Your task to perform on an android device: Is it going to rain tomorrow? Image 0: 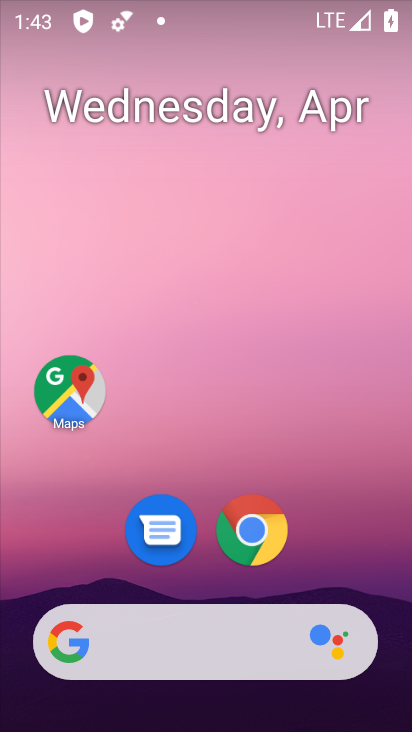
Step 0: drag from (332, 545) to (212, 0)
Your task to perform on an android device: Is it going to rain tomorrow? Image 1: 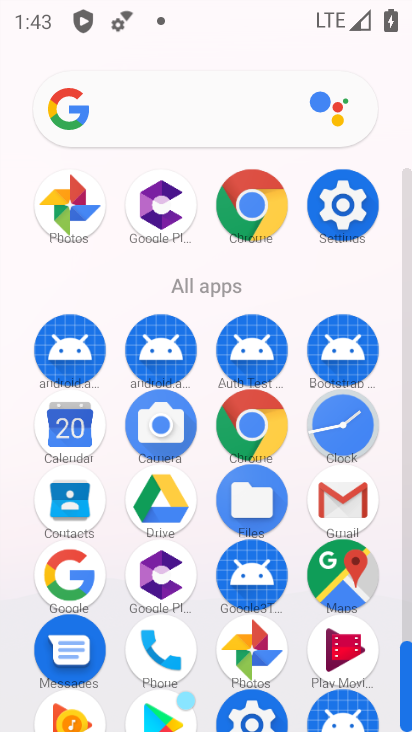
Step 1: click (240, 201)
Your task to perform on an android device: Is it going to rain tomorrow? Image 2: 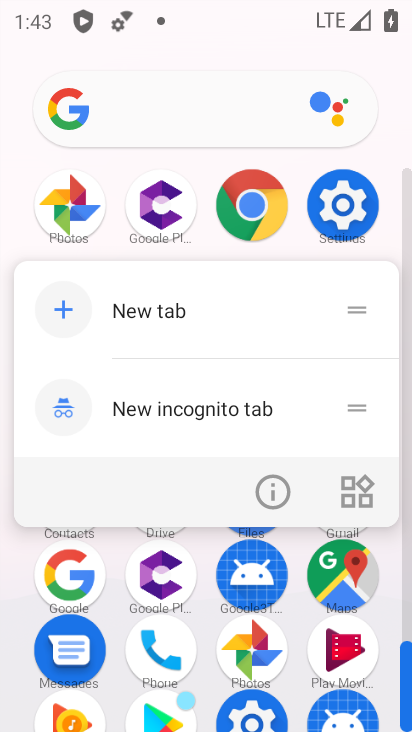
Step 2: click (301, 175)
Your task to perform on an android device: Is it going to rain tomorrow? Image 3: 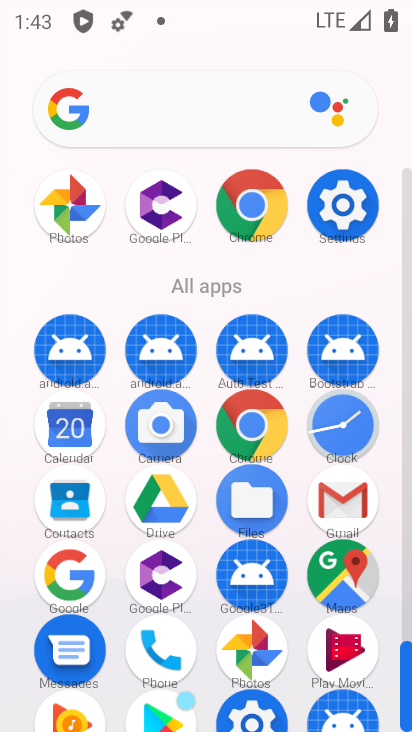
Step 3: click (245, 424)
Your task to perform on an android device: Is it going to rain tomorrow? Image 4: 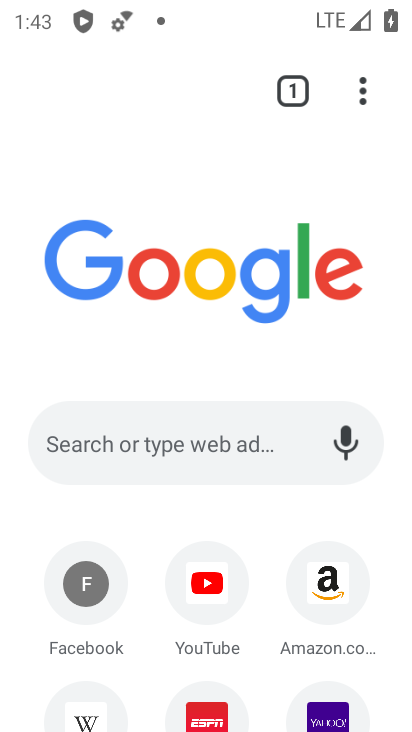
Step 4: click (191, 436)
Your task to perform on an android device: Is it going to rain tomorrow? Image 5: 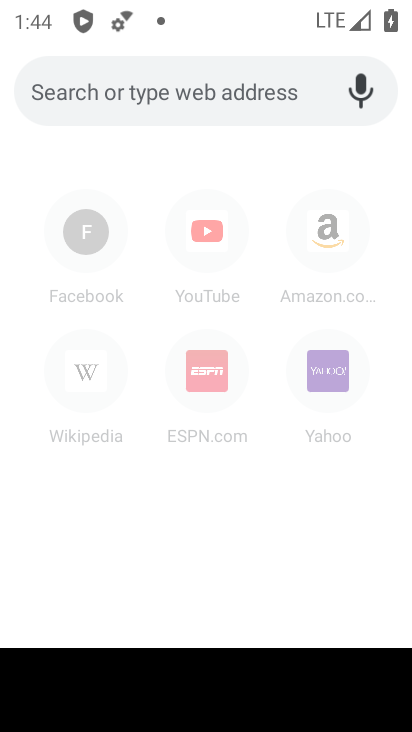
Step 5: type "weather"
Your task to perform on an android device: Is it going to rain tomorrow? Image 6: 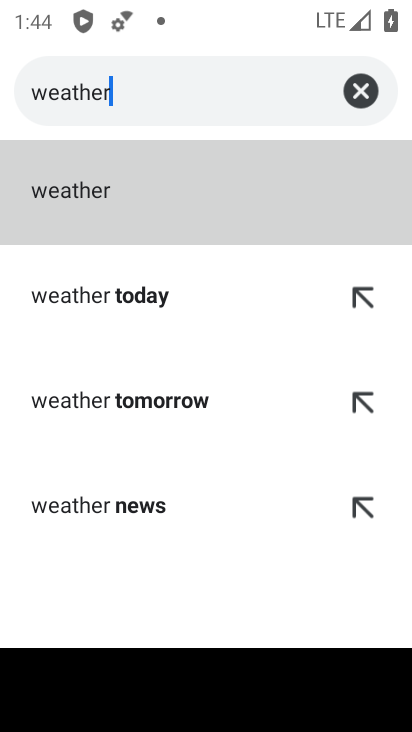
Step 6: click (81, 201)
Your task to perform on an android device: Is it going to rain tomorrow? Image 7: 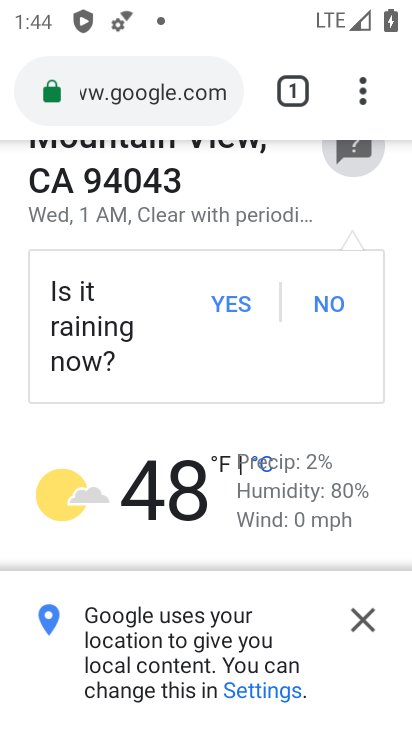
Step 7: task complete